Your task to perform on an android device: uninstall "Spotify" Image 0: 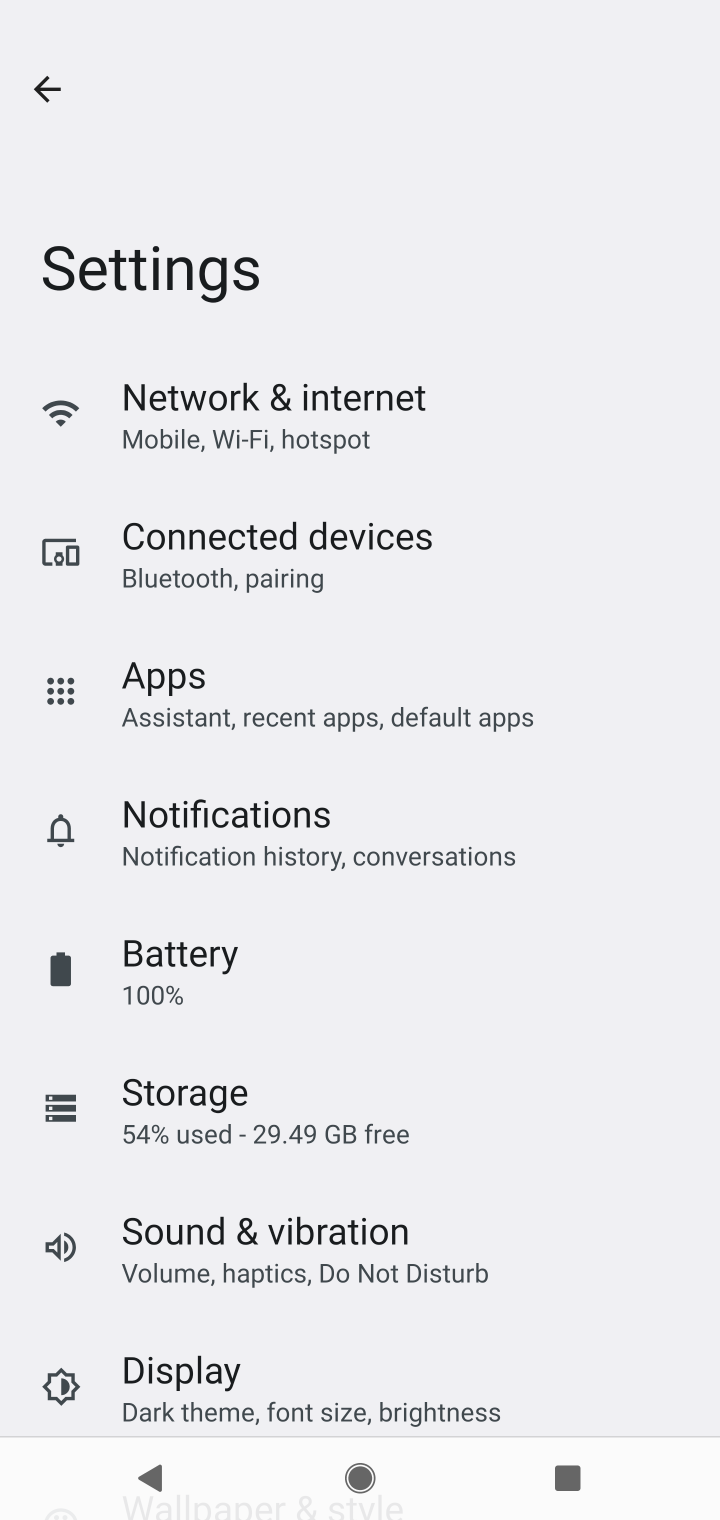
Step 0: press home button
Your task to perform on an android device: uninstall "Spotify" Image 1: 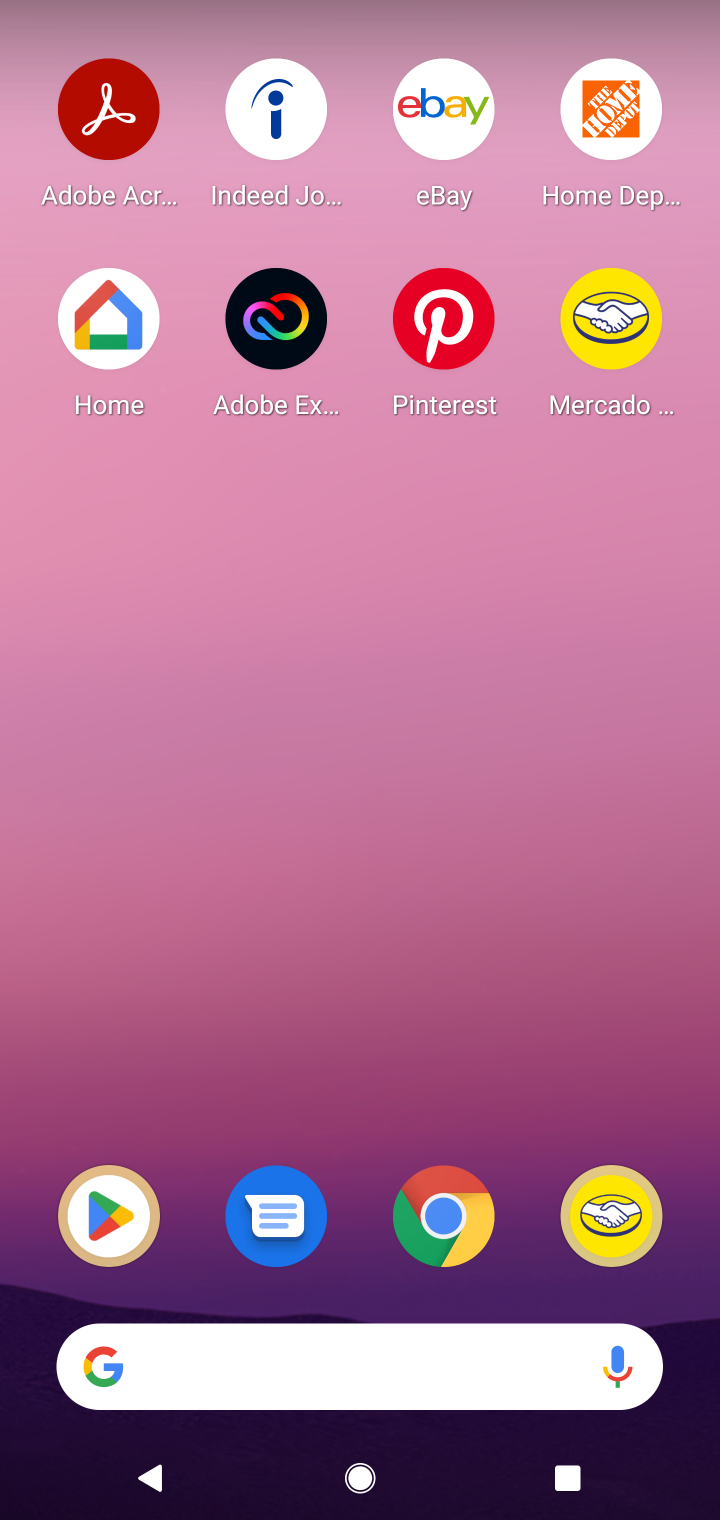
Step 1: drag from (191, 1265) to (172, 167)
Your task to perform on an android device: uninstall "Spotify" Image 2: 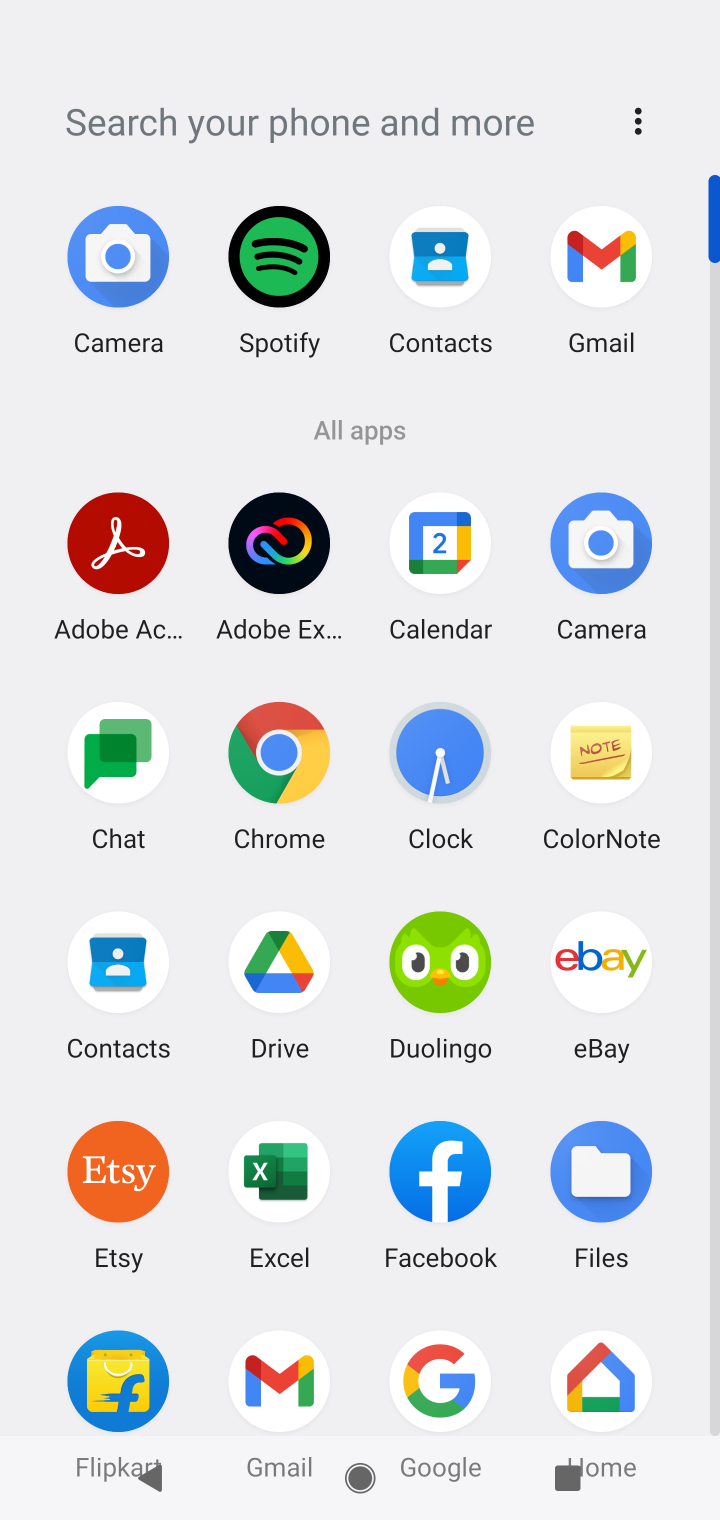
Step 2: click (249, 276)
Your task to perform on an android device: uninstall "Spotify" Image 3: 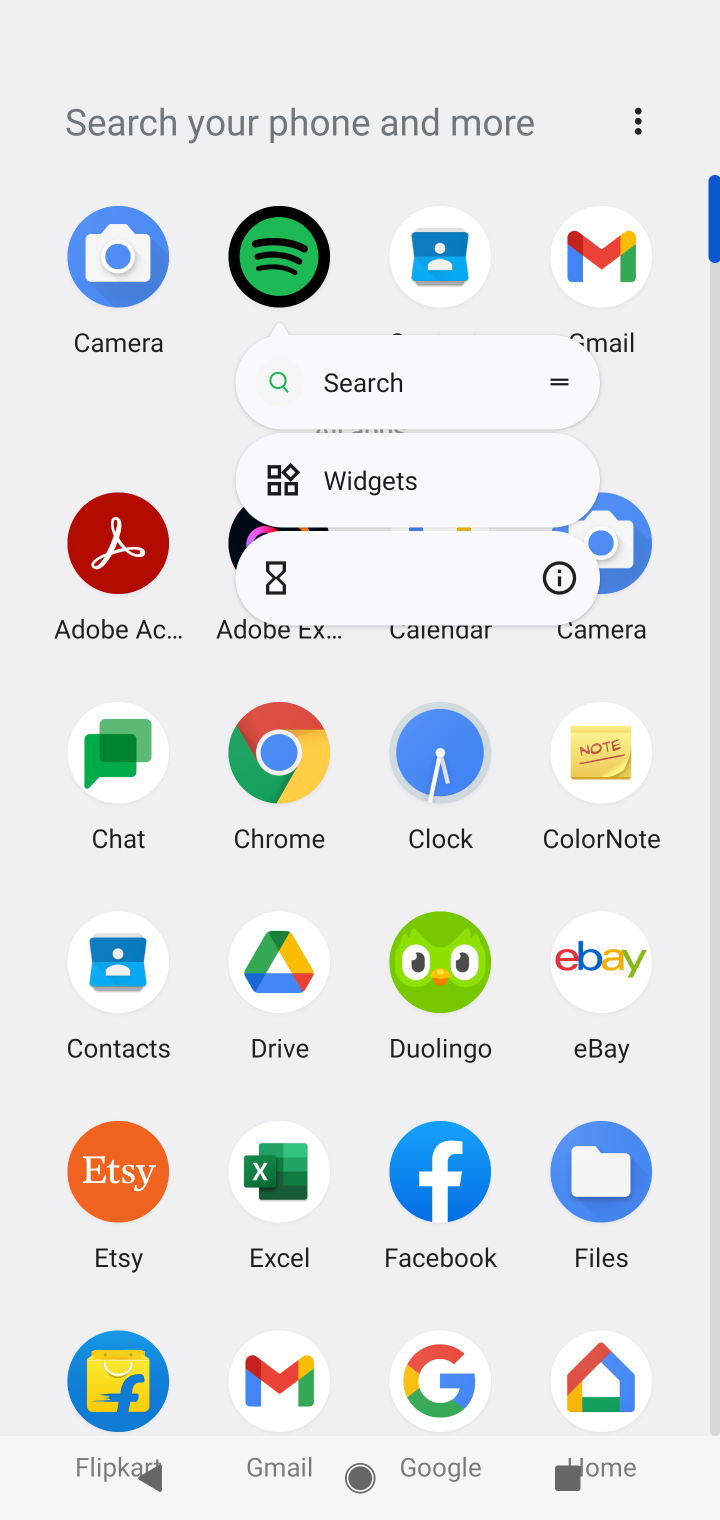
Step 3: click (565, 566)
Your task to perform on an android device: uninstall "Spotify" Image 4: 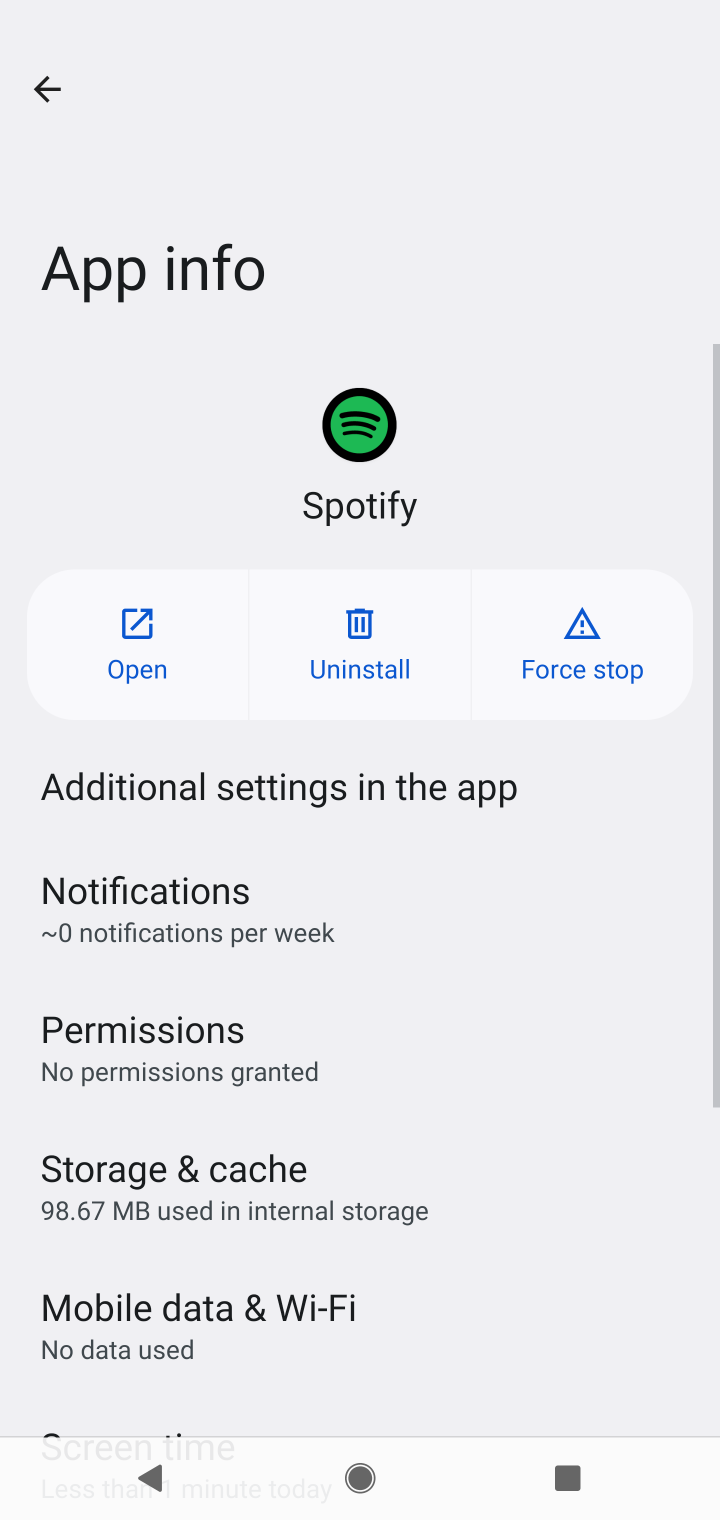
Step 4: click (330, 669)
Your task to perform on an android device: uninstall "Spotify" Image 5: 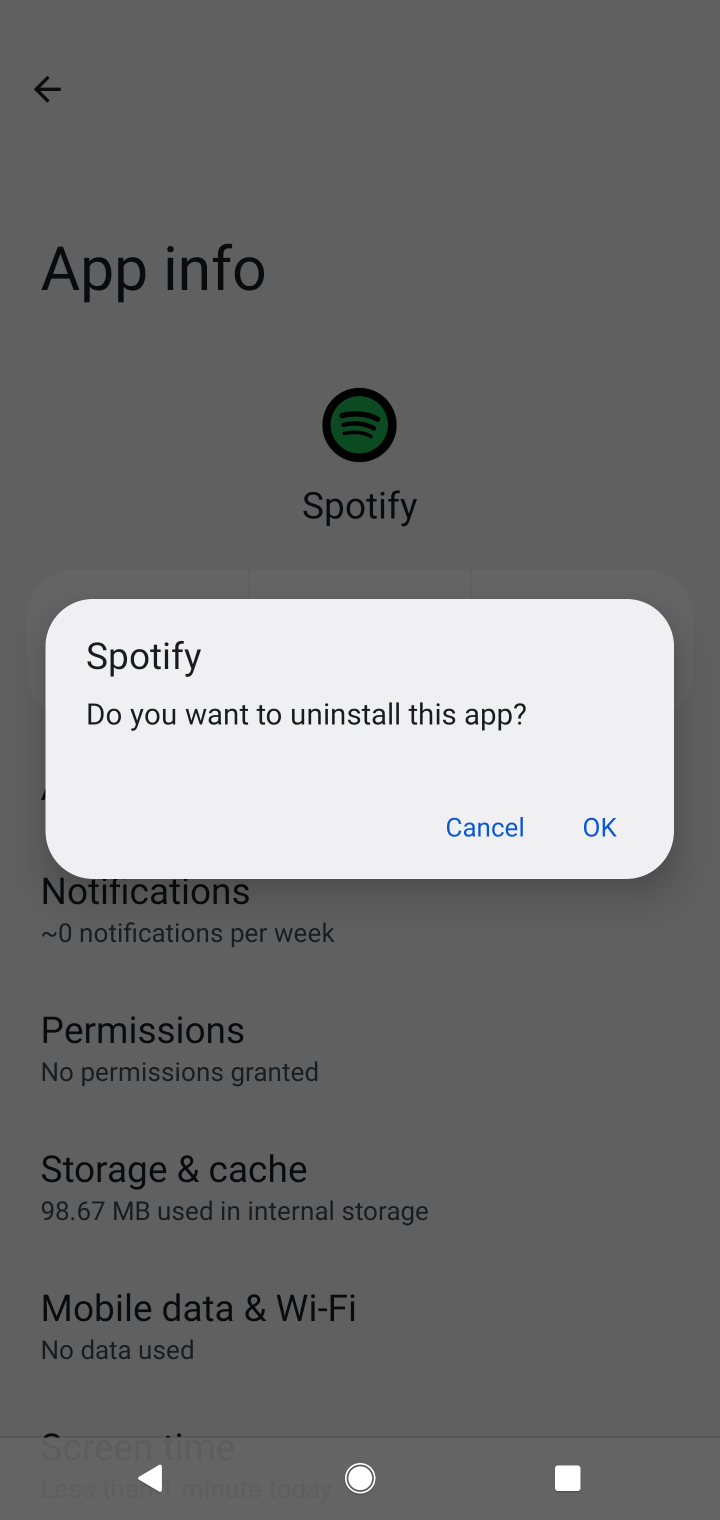
Step 5: click (586, 826)
Your task to perform on an android device: uninstall "Spotify" Image 6: 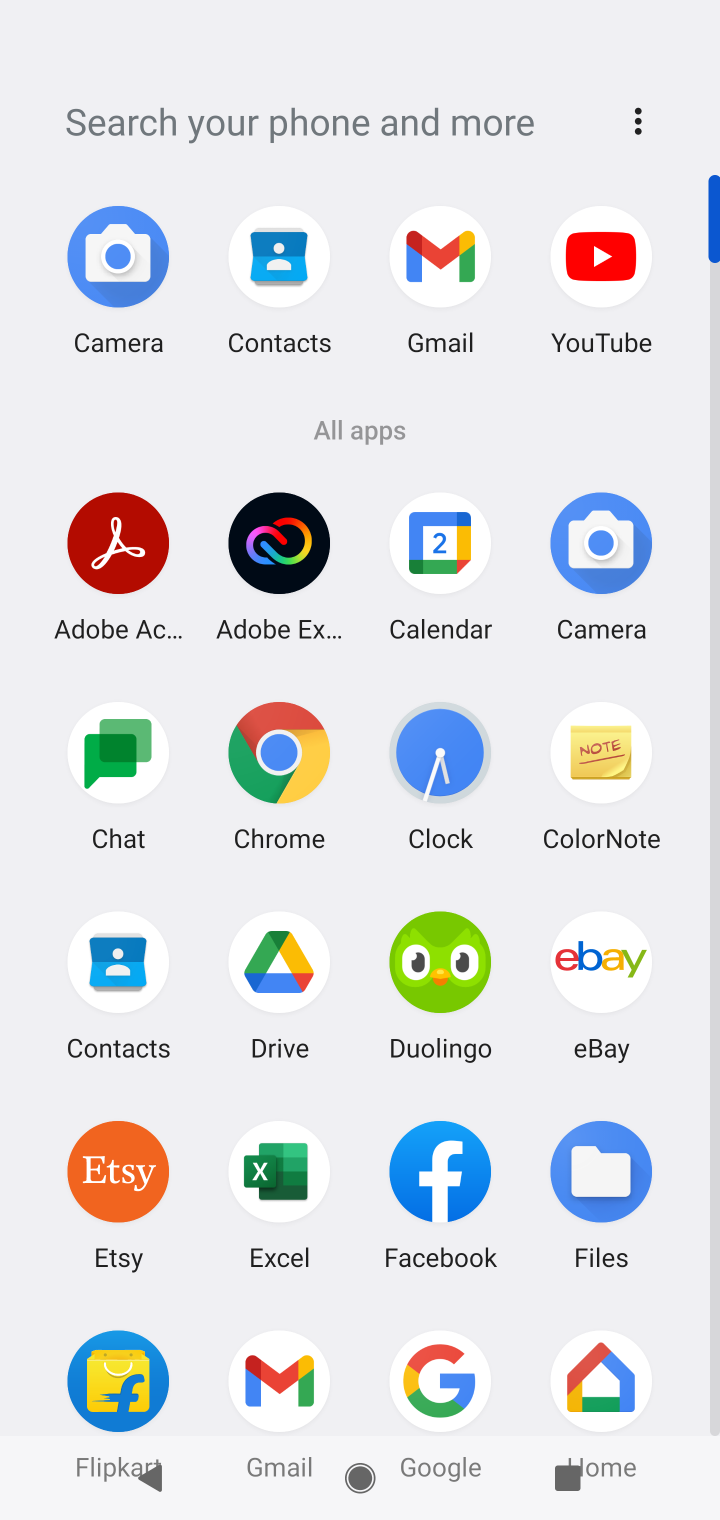
Step 6: task complete